Your task to perform on an android device: change text size in settings app Image 0: 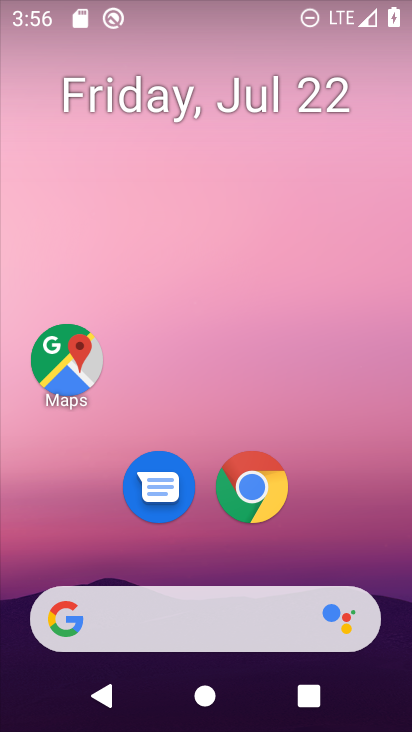
Step 0: drag from (140, 574) to (275, 61)
Your task to perform on an android device: change text size in settings app Image 1: 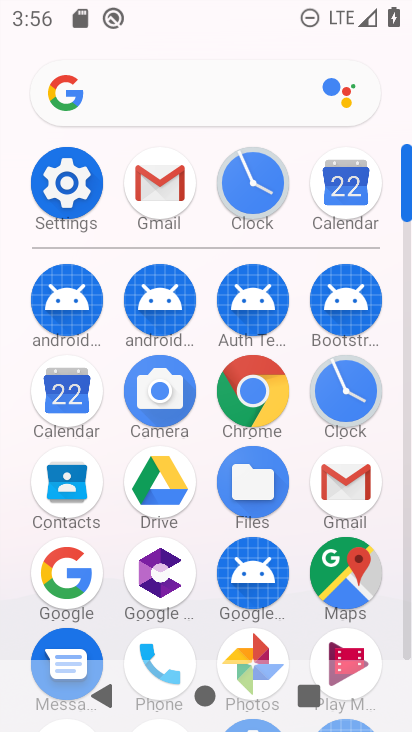
Step 1: click (77, 184)
Your task to perform on an android device: change text size in settings app Image 2: 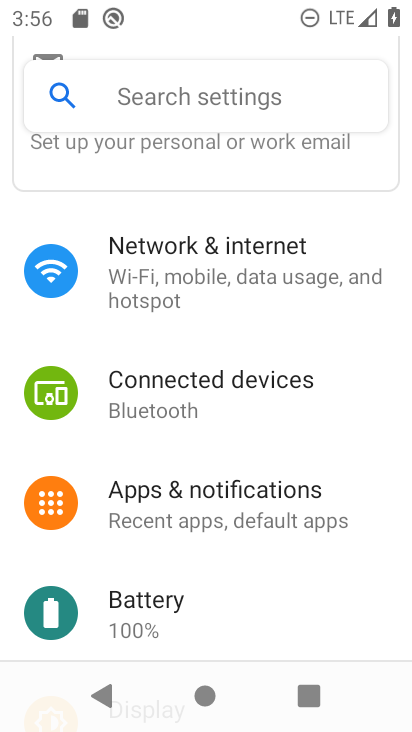
Step 2: click (231, 102)
Your task to perform on an android device: change text size in settings app Image 3: 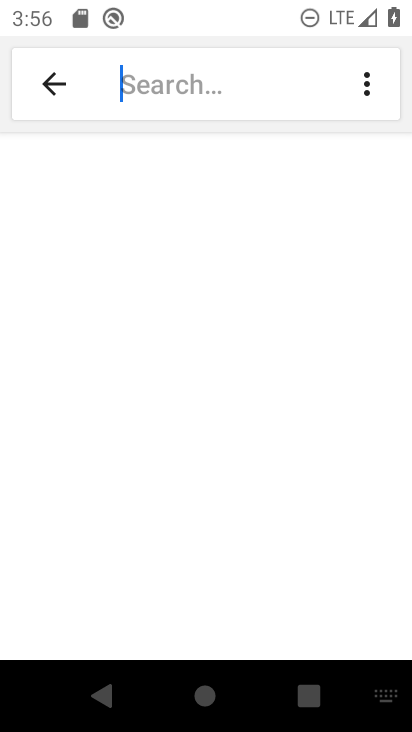
Step 3: type "text size"
Your task to perform on an android device: change text size in settings app Image 4: 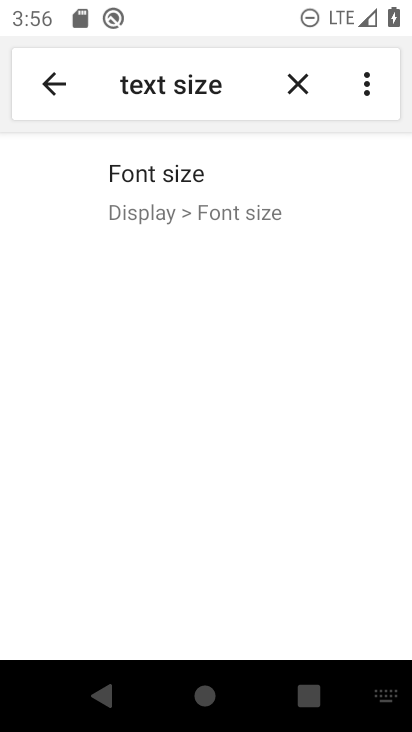
Step 4: click (140, 186)
Your task to perform on an android device: change text size in settings app Image 5: 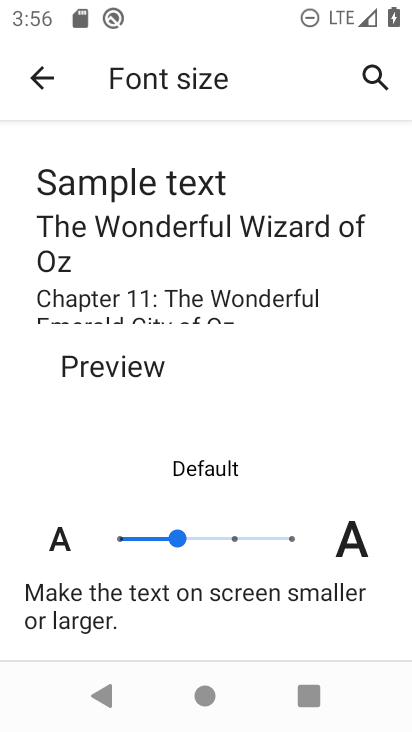
Step 5: task complete